Your task to perform on an android device: snooze an email in the gmail app Image 0: 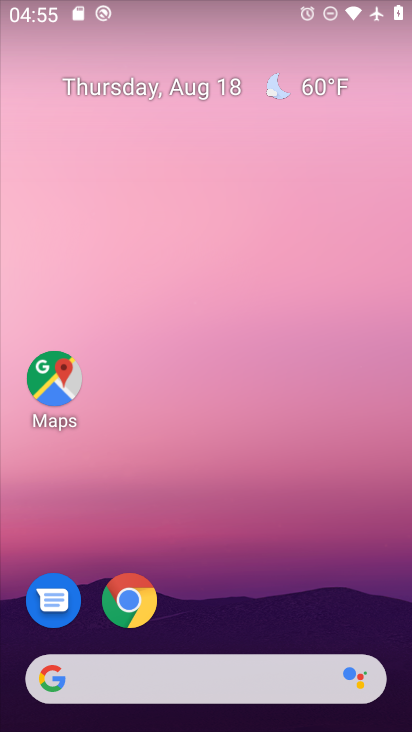
Step 0: press home button
Your task to perform on an android device: snooze an email in the gmail app Image 1: 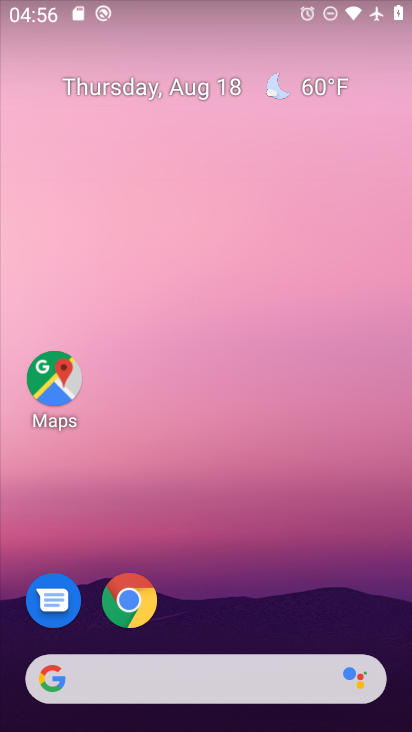
Step 1: drag from (249, 639) to (273, 22)
Your task to perform on an android device: snooze an email in the gmail app Image 2: 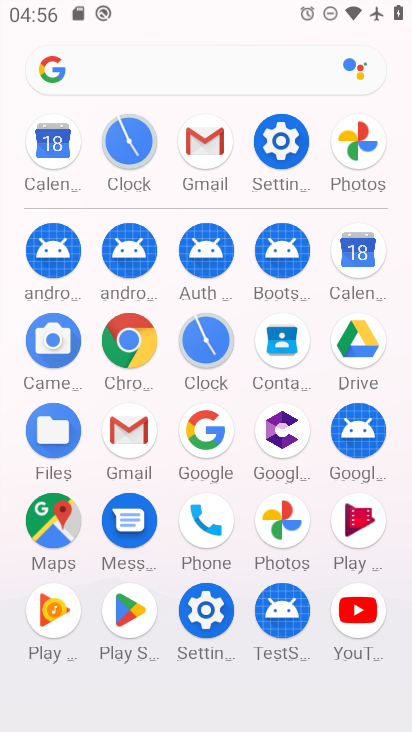
Step 2: click (198, 149)
Your task to perform on an android device: snooze an email in the gmail app Image 3: 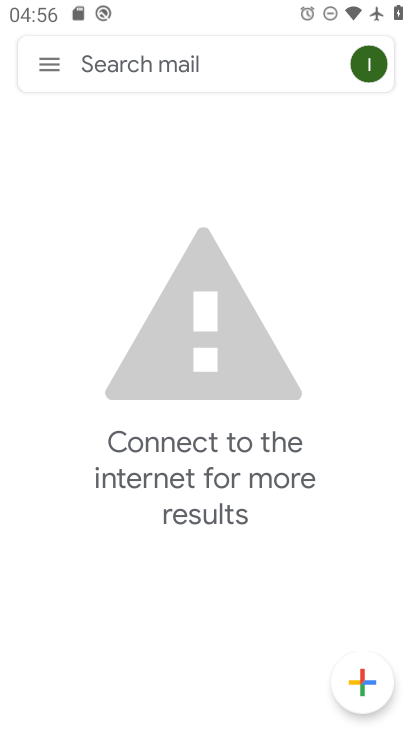
Step 3: click (50, 62)
Your task to perform on an android device: snooze an email in the gmail app Image 4: 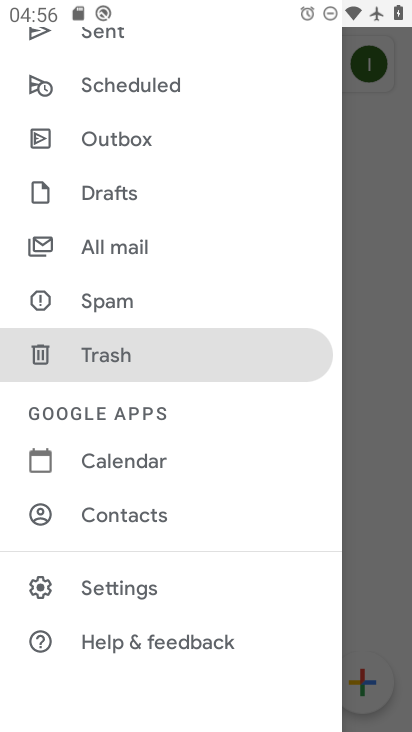
Step 4: click (104, 248)
Your task to perform on an android device: snooze an email in the gmail app Image 5: 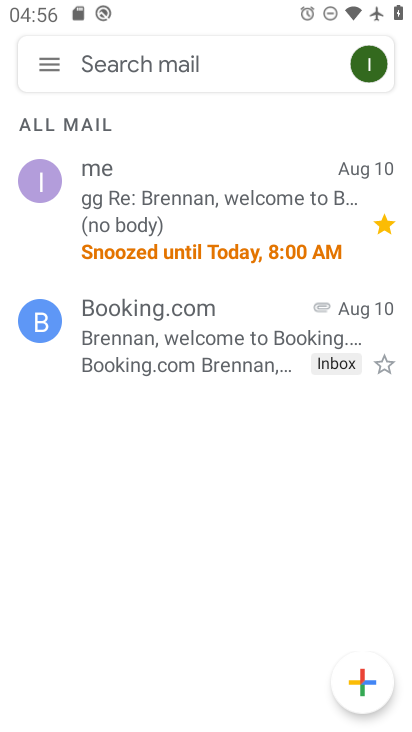
Step 5: click (189, 336)
Your task to perform on an android device: snooze an email in the gmail app Image 6: 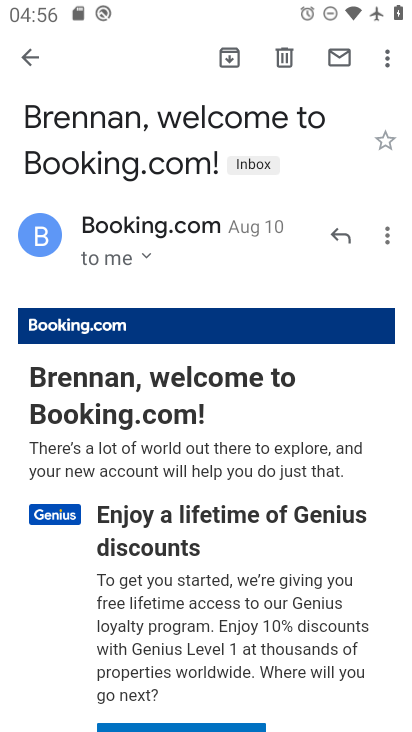
Step 6: click (384, 59)
Your task to perform on an android device: snooze an email in the gmail app Image 7: 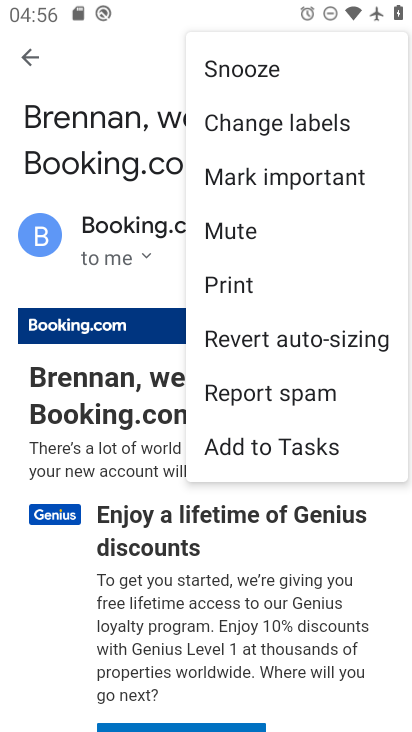
Step 7: click (230, 73)
Your task to perform on an android device: snooze an email in the gmail app Image 8: 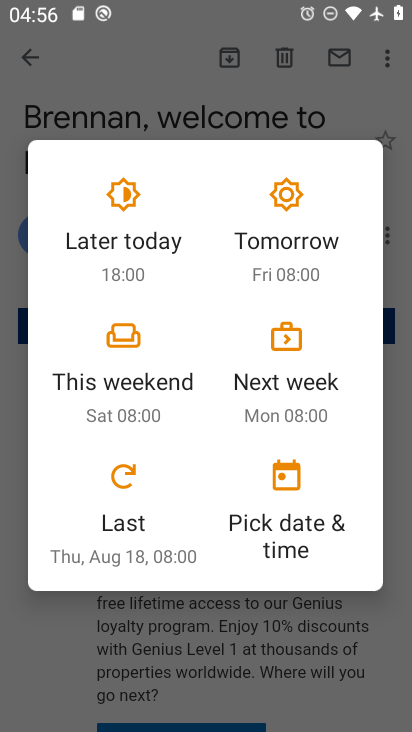
Step 8: click (291, 195)
Your task to perform on an android device: snooze an email in the gmail app Image 9: 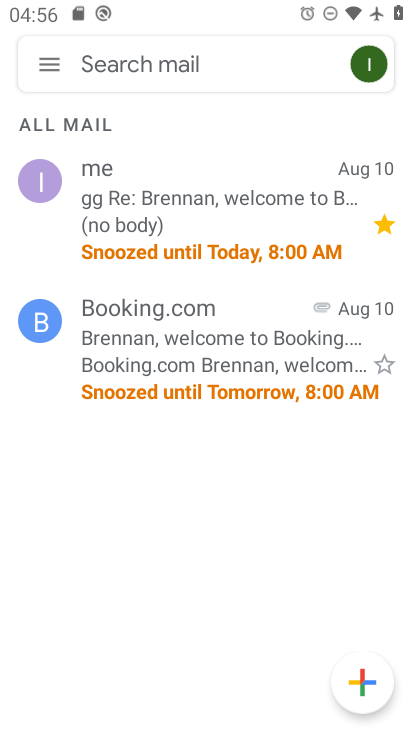
Step 9: task complete